Your task to perform on an android device: Play the last video I watched on Youtube Image 0: 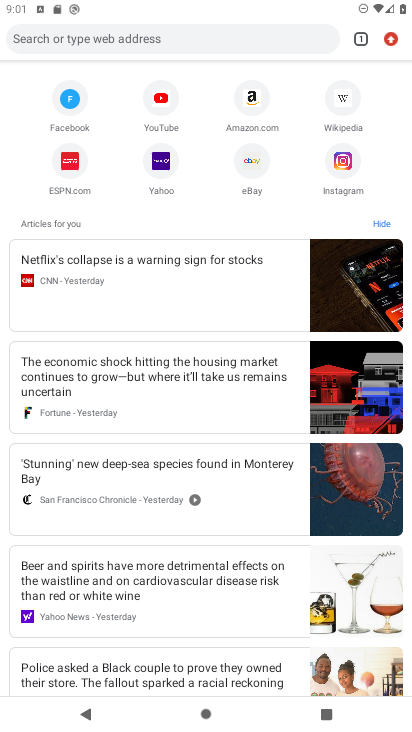
Step 0: press home button
Your task to perform on an android device: Play the last video I watched on Youtube Image 1: 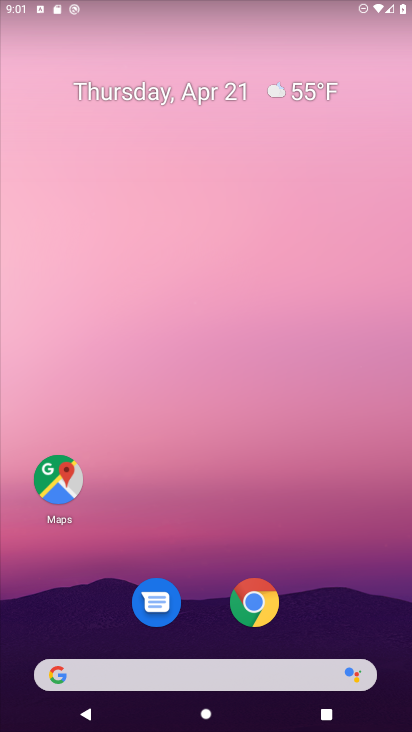
Step 1: drag from (206, 623) to (226, 173)
Your task to perform on an android device: Play the last video I watched on Youtube Image 2: 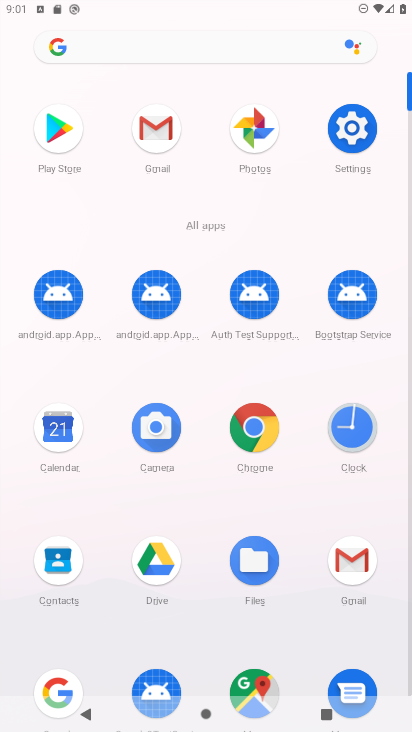
Step 2: drag from (179, 597) to (216, 254)
Your task to perform on an android device: Play the last video I watched on Youtube Image 3: 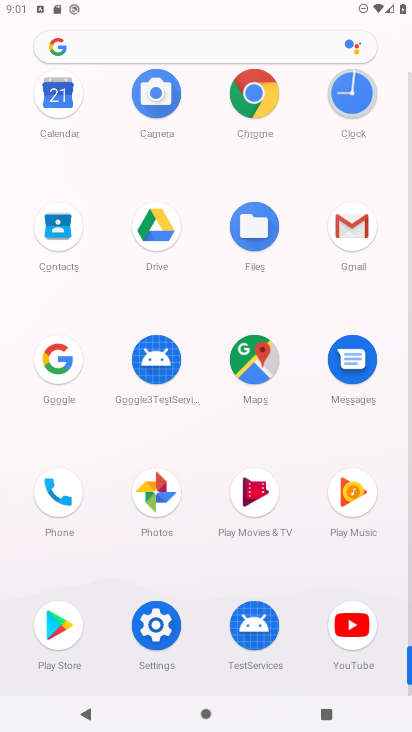
Step 3: click (343, 620)
Your task to perform on an android device: Play the last video I watched on Youtube Image 4: 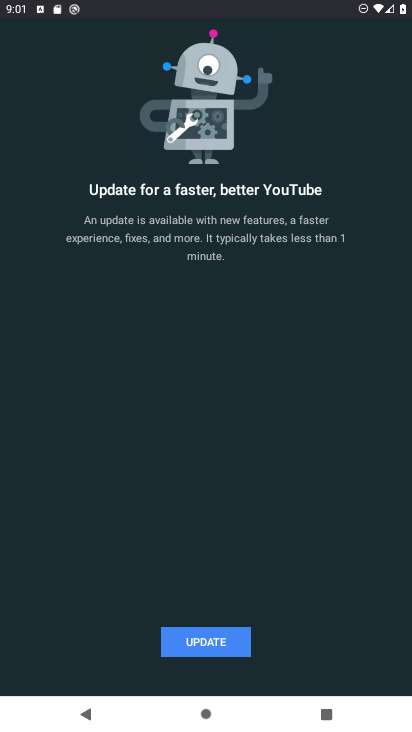
Step 4: click (222, 639)
Your task to perform on an android device: Play the last video I watched on Youtube Image 5: 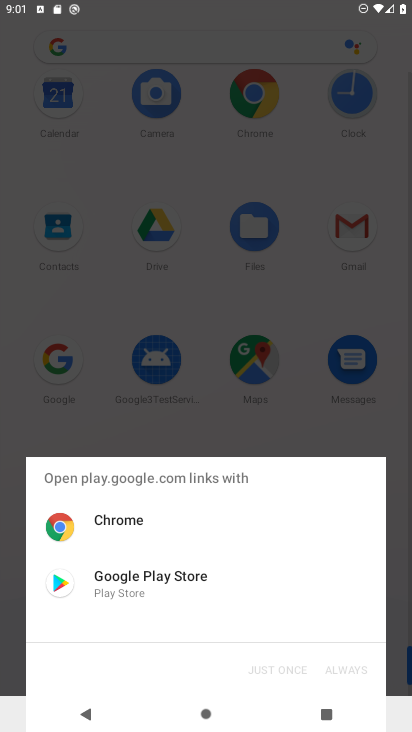
Step 5: click (180, 564)
Your task to perform on an android device: Play the last video I watched on Youtube Image 6: 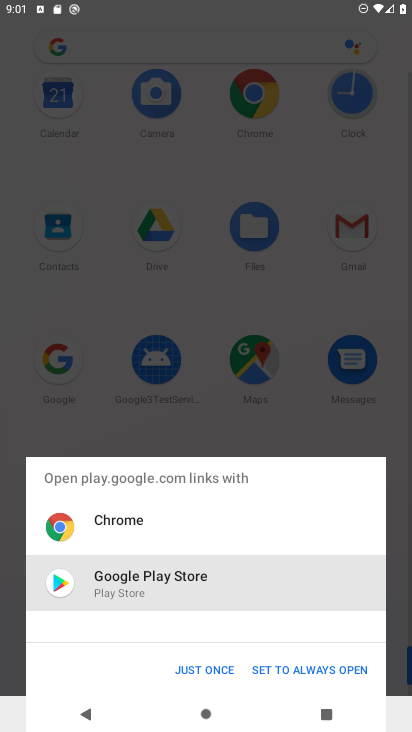
Step 6: click (235, 663)
Your task to perform on an android device: Play the last video I watched on Youtube Image 7: 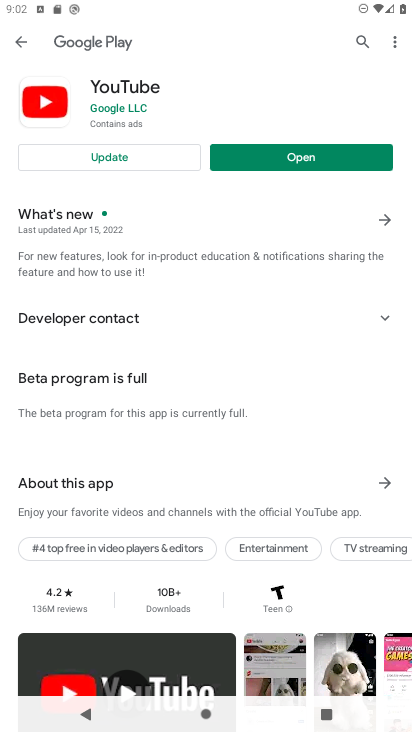
Step 7: click (157, 148)
Your task to perform on an android device: Play the last video I watched on Youtube Image 8: 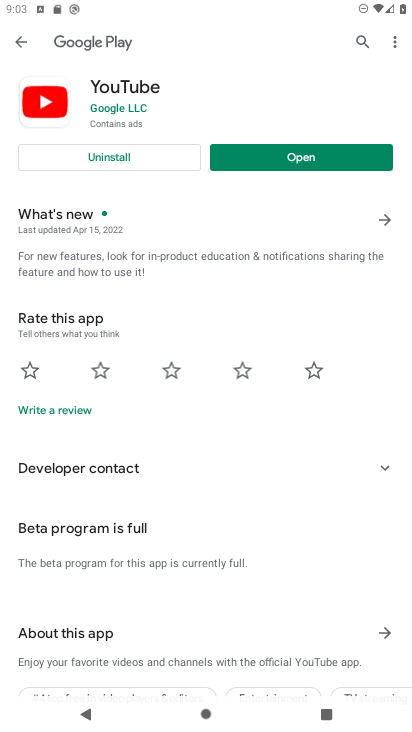
Step 8: click (338, 160)
Your task to perform on an android device: Play the last video I watched on Youtube Image 9: 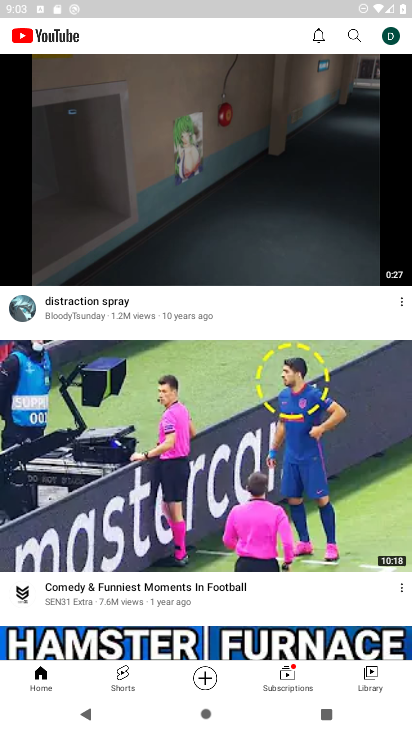
Step 9: task complete